Your task to perform on an android device: What's the weather going to be this weekend? Image 0: 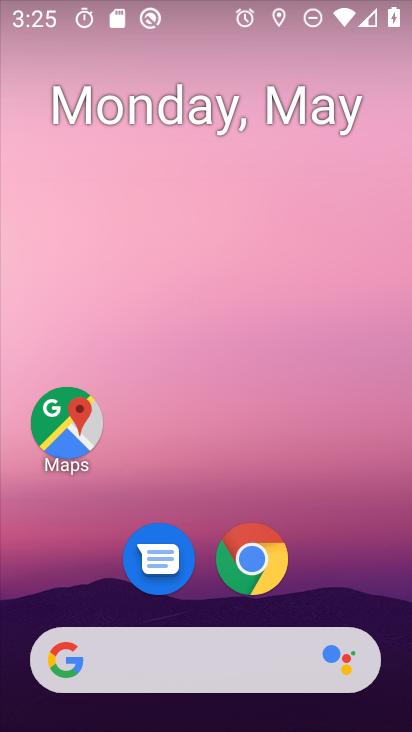
Step 0: click (332, 9)
Your task to perform on an android device: What's the weather going to be this weekend? Image 1: 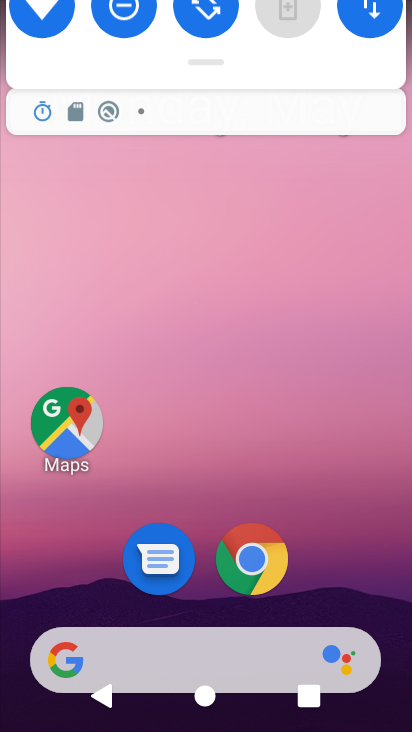
Step 1: drag from (213, 581) to (271, 20)
Your task to perform on an android device: What's the weather going to be this weekend? Image 2: 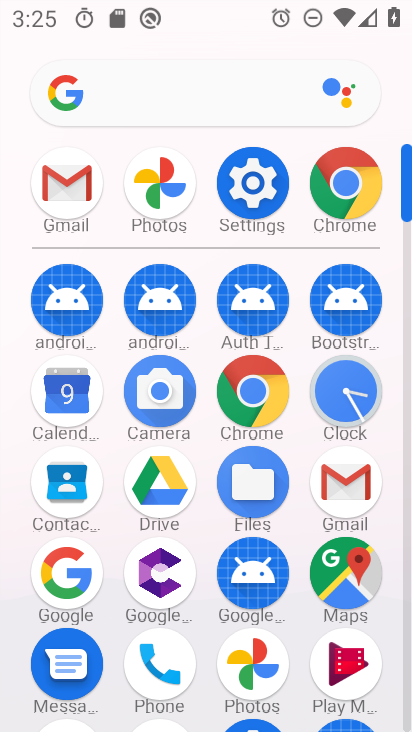
Step 2: drag from (197, 704) to (176, 273)
Your task to perform on an android device: What's the weather going to be this weekend? Image 3: 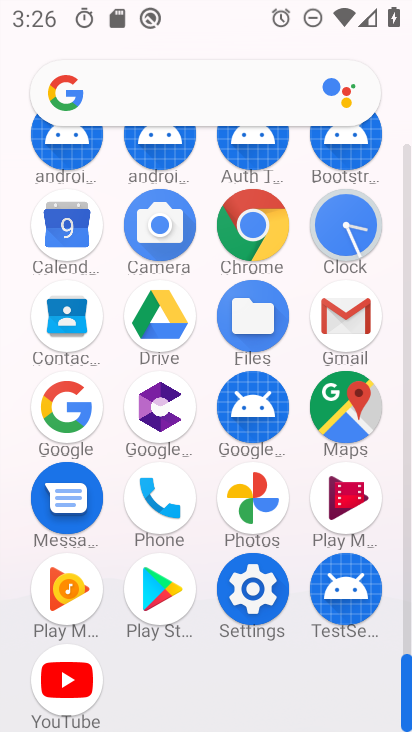
Step 3: click (238, 93)
Your task to perform on an android device: What's the weather going to be this weekend? Image 4: 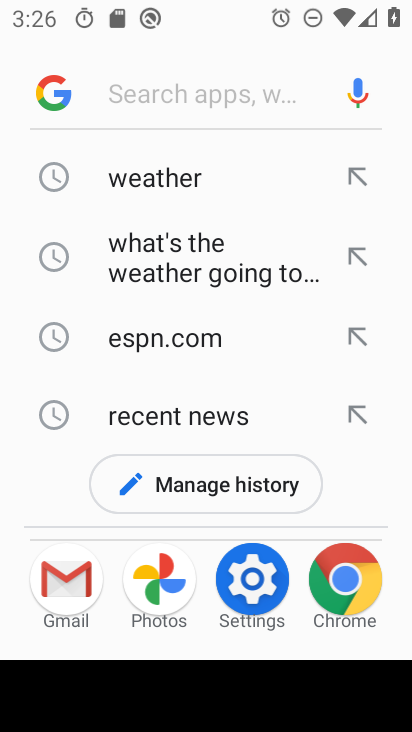
Step 4: click (227, 261)
Your task to perform on an android device: What's the weather going to be this weekend? Image 5: 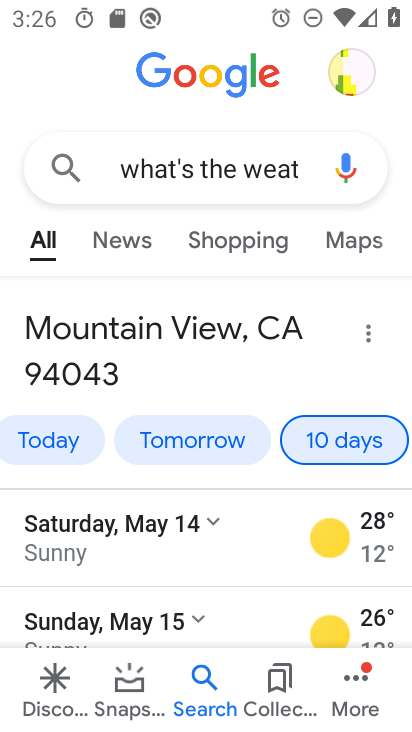
Step 5: task complete